Your task to perform on an android device: find which apps use the phone's location Image 0: 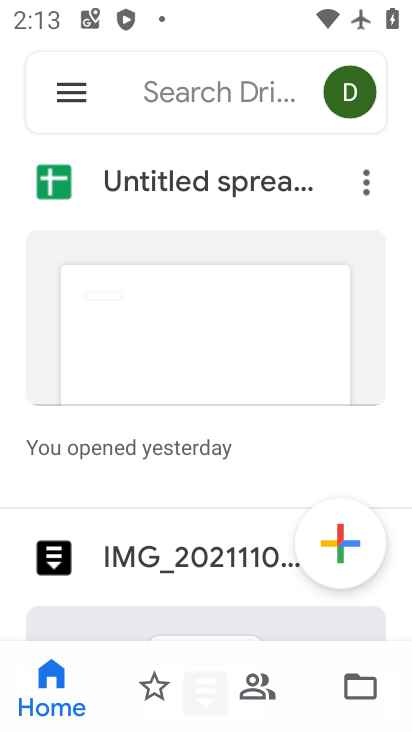
Step 0: press home button
Your task to perform on an android device: find which apps use the phone's location Image 1: 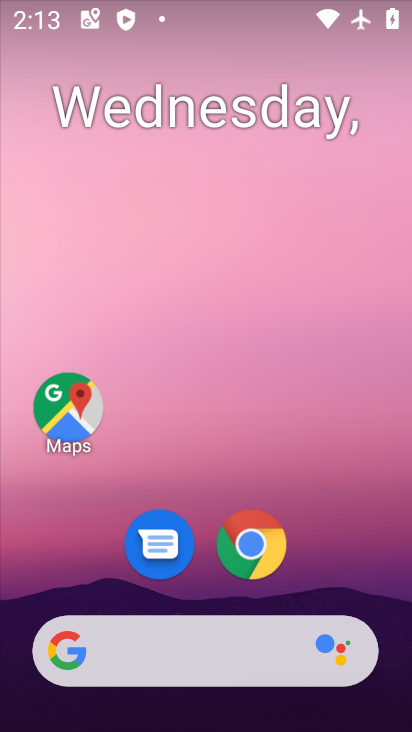
Step 1: drag from (328, 575) to (335, 79)
Your task to perform on an android device: find which apps use the phone's location Image 2: 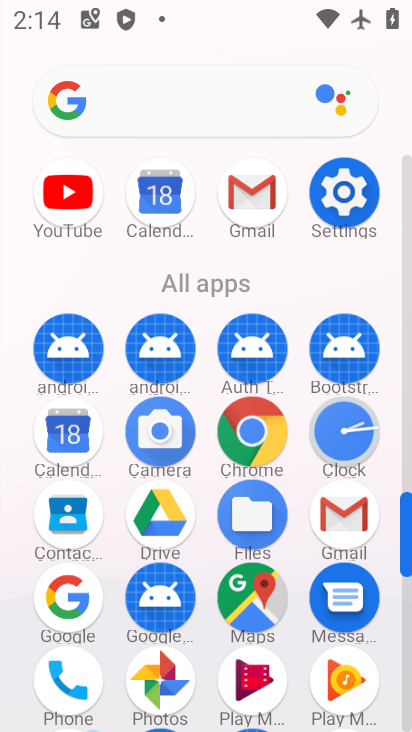
Step 2: click (345, 184)
Your task to perform on an android device: find which apps use the phone's location Image 3: 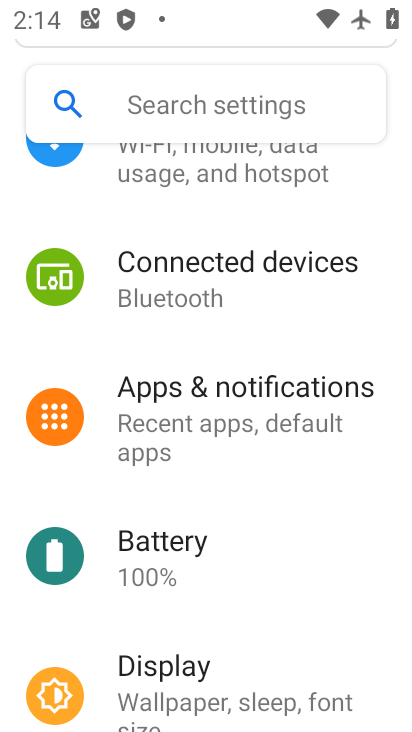
Step 3: drag from (215, 484) to (295, 148)
Your task to perform on an android device: find which apps use the phone's location Image 4: 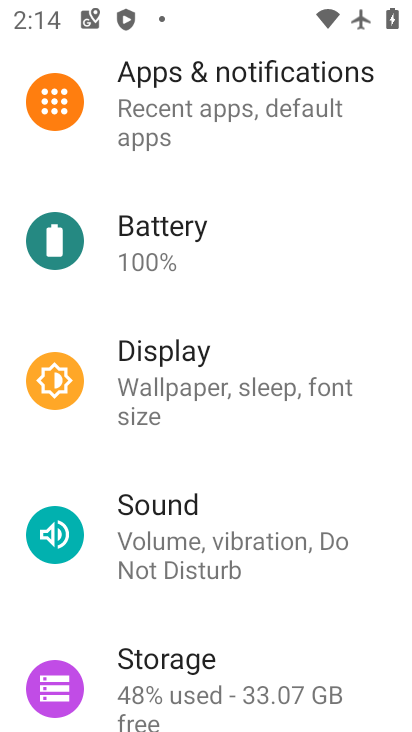
Step 4: drag from (236, 570) to (284, 228)
Your task to perform on an android device: find which apps use the phone's location Image 5: 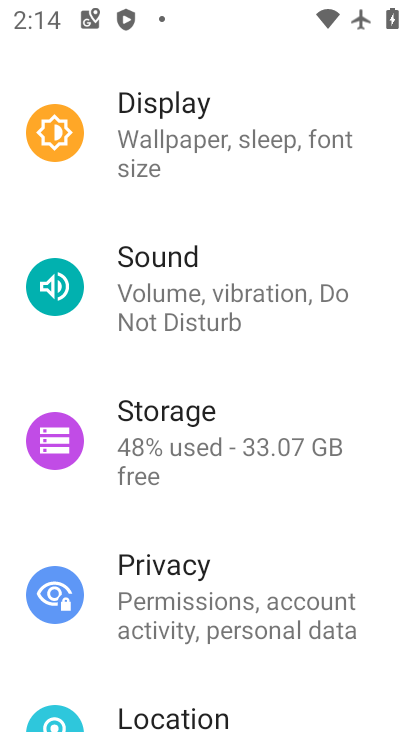
Step 5: click (204, 710)
Your task to perform on an android device: find which apps use the phone's location Image 6: 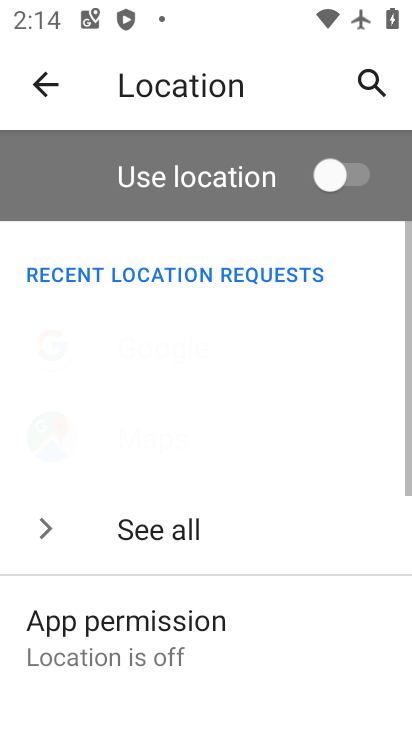
Step 6: task complete